Your task to perform on an android device: manage bookmarks in the chrome app Image 0: 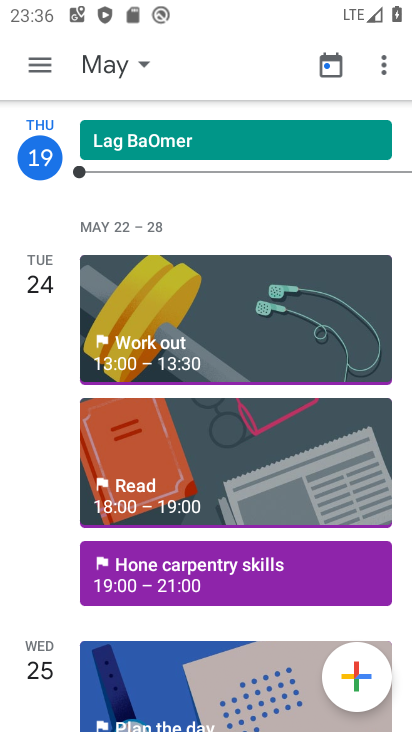
Step 0: press home button
Your task to perform on an android device: manage bookmarks in the chrome app Image 1: 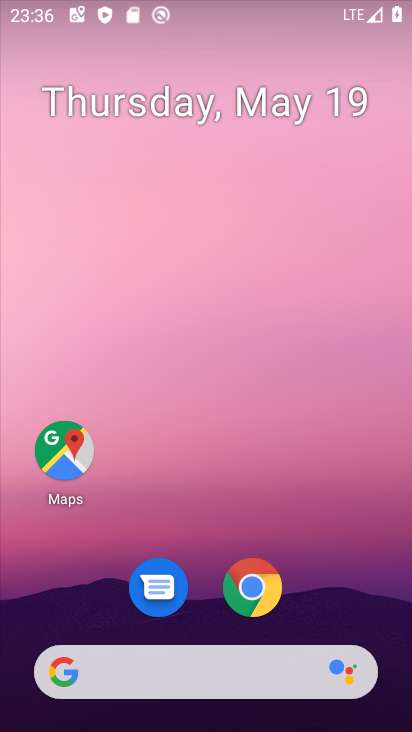
Step 1: drag from (275, 700) to (252, 205)
Your task to perform on an android device: manage bookmarks in the chrome app Image 2: 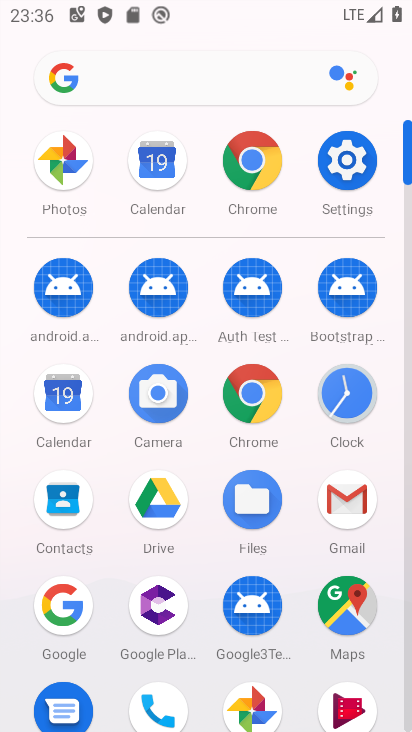
Step 2: click (253, 174)
Your task to perform on an android device: manage bookmarks in the chrome app Image 3: 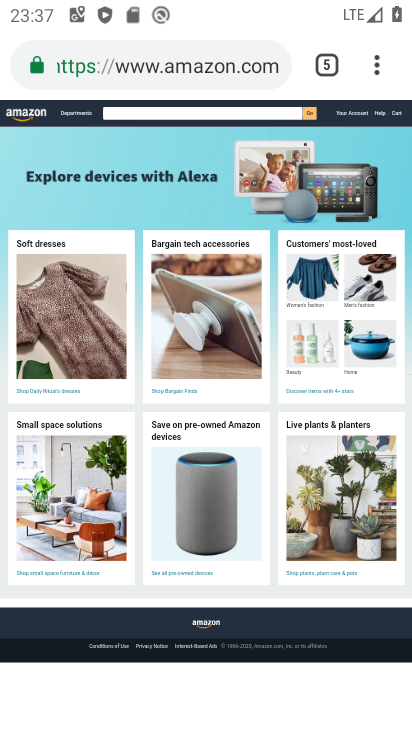
Step 3: click (380, 79)
Your task to perform on an android device: manage bookmarks in the chrome app Image 4: 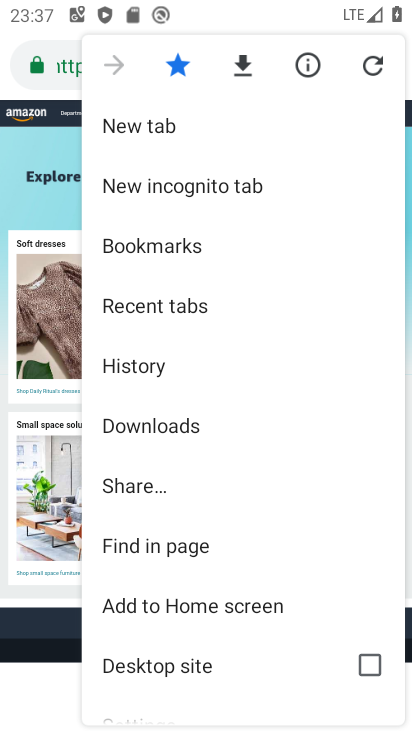
Step 4: click (200, 254)
Your task to perform on an android device: manage bookmarks in the chrome app Image 5: 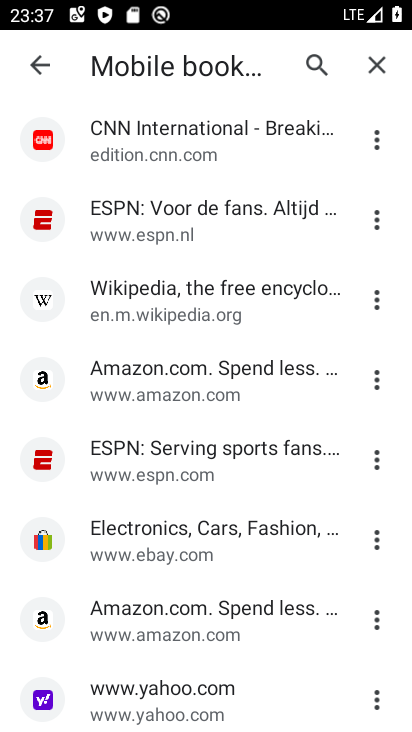
Step 5: task complete